Your task to perform on an android device: Open Chrome and go to the settings page Image 0: 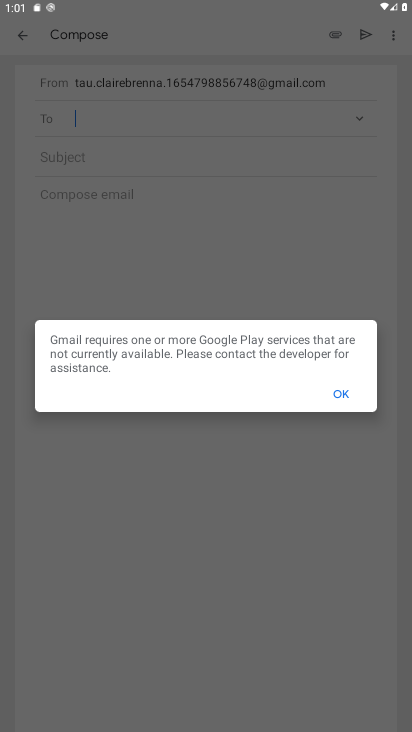
Step 0: click (344, 387)
Your task to perform on an android device: Open Chrome and go to the settings page Image 1: 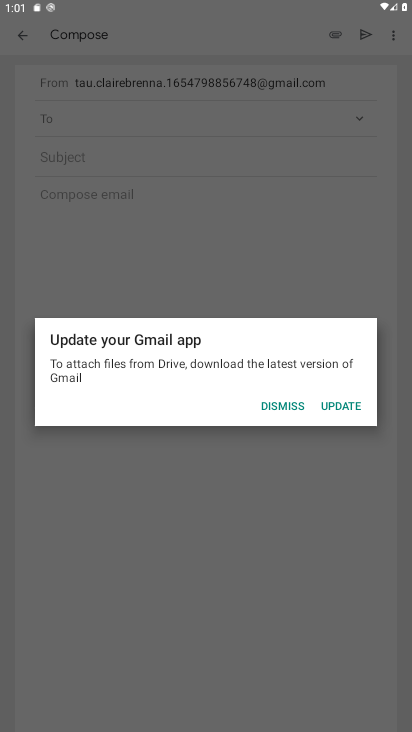
Step 1: click (346, 385)
Your task to perform on an android device: Open Chrome and go to the settings page Image 2: 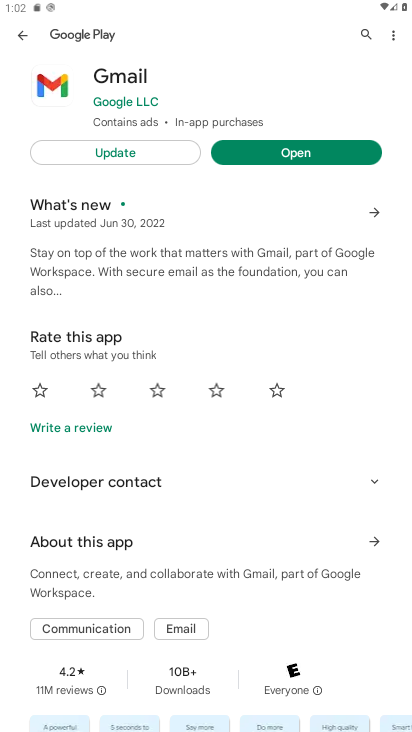
Step 2: press back button
Your task to perform on an android device: Open Chrome and go to the settings page Image 3: 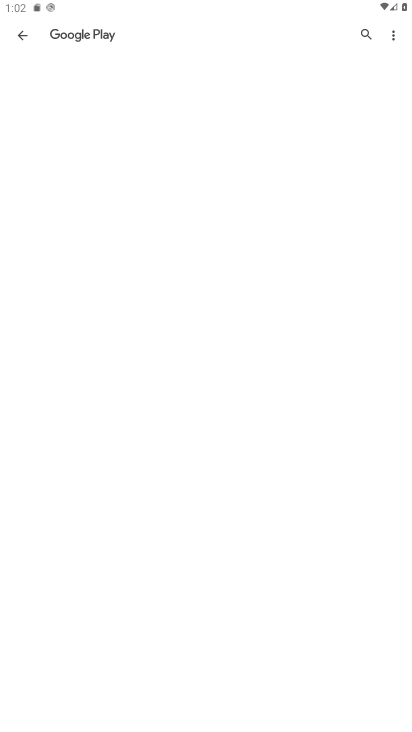
Step 3: press back button
Your task to perform on an android device: Open Chrome and go to the settings page Image 4: 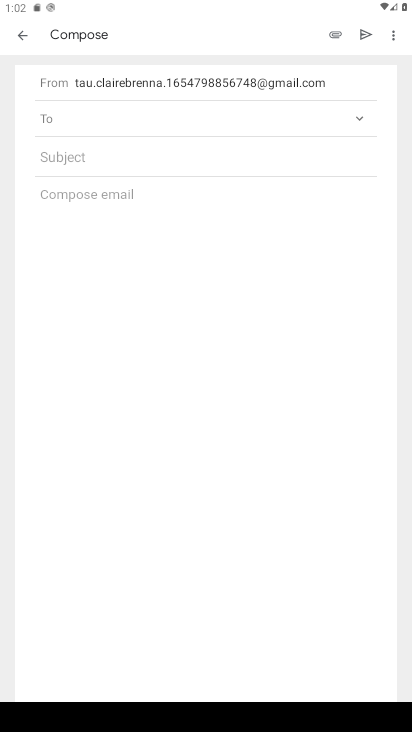
Step 4: click (23, 35)
Your task to perform on an android device: Open Chrome and go to the settings page Image 5: 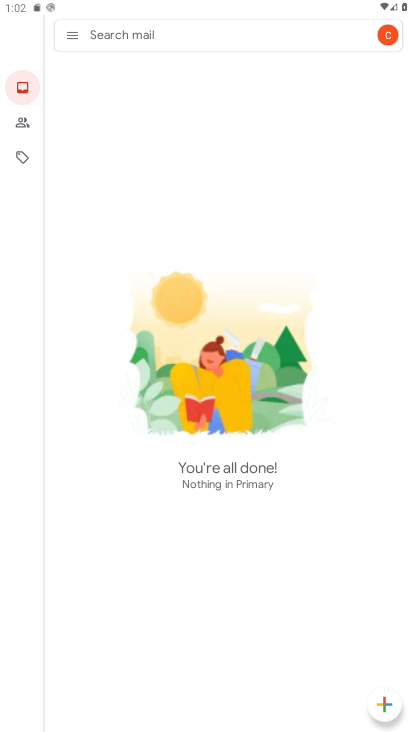
Step 5: press home button
Your task to perform on an android device: Open Chrome and go to the settings page Image 6: 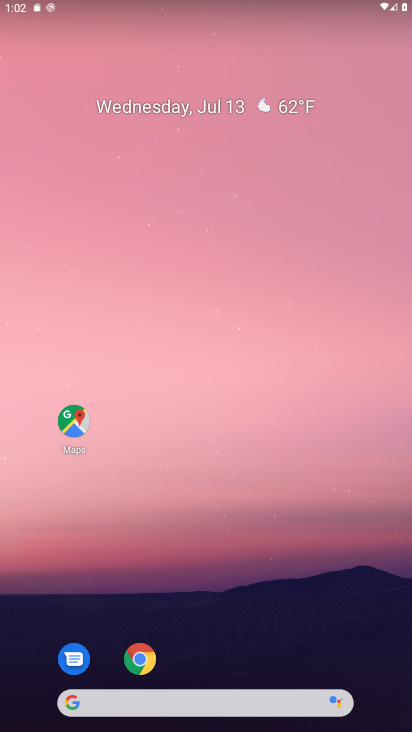
Step 6: drag from (209, 719) to (198, 0)
Your task to perform on an android device: Open Chrome and go to the settings page Image 7: 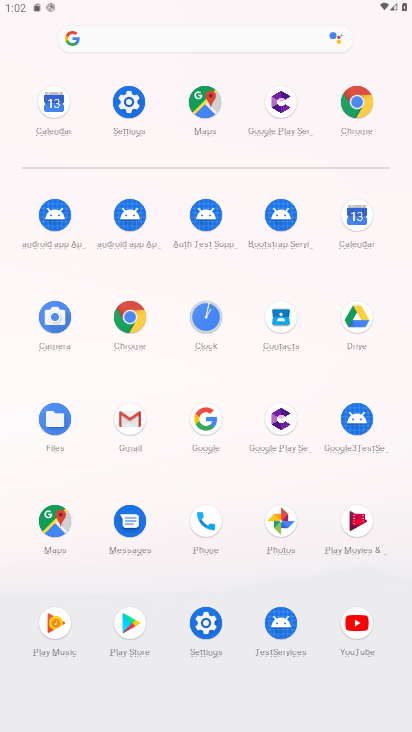
Step 7: click (121, 97)
Your task to perform on an android device: Open Chrome and go to the settings page Image 8: 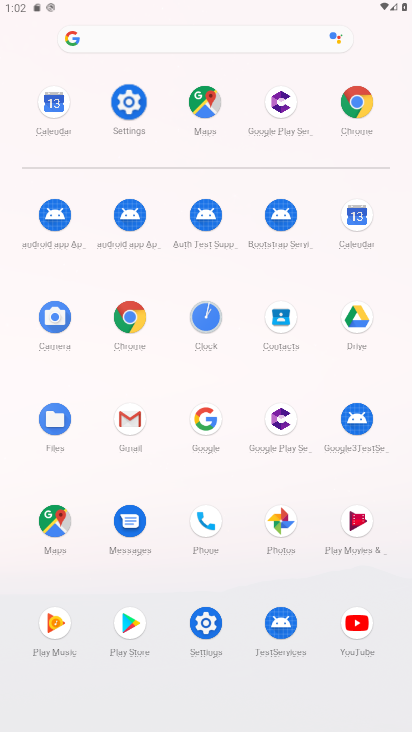
Step 8: click (121, 97)
Your task to perform on an android device: Open Chrome and go to the settings page Image 9: 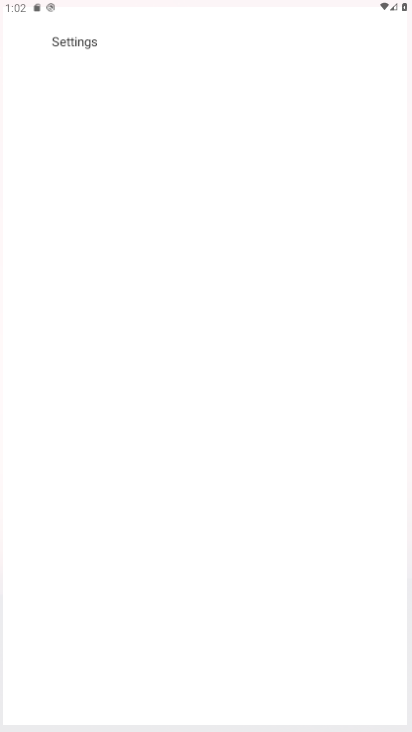
Step 9: click (121, 97)
Your task to perform on an android device: Open Chrome and go to the settings page Image 10: 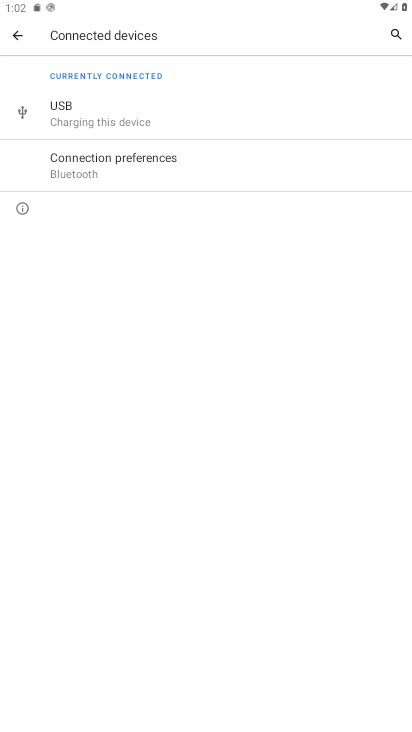
Step 10: click (9, 32)
Your task to perform on an android device: Open Chrome and go to the settings page Image 11: 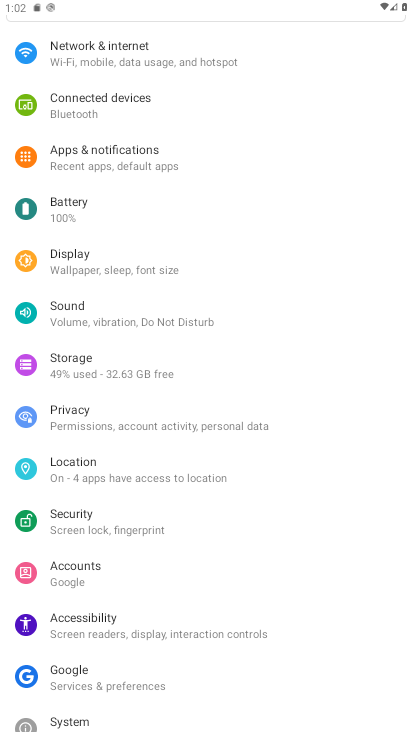
Step 11: press back button
Your task to perform on an android device: Open Chrome and go to the settings page Image 12: 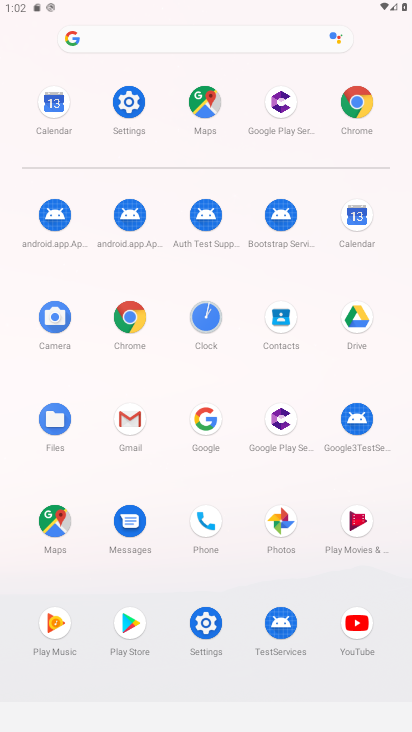
Step 12: click (132, 317)
Your task to perform on an android device: Open Chrome and go to the settings page Image 13: 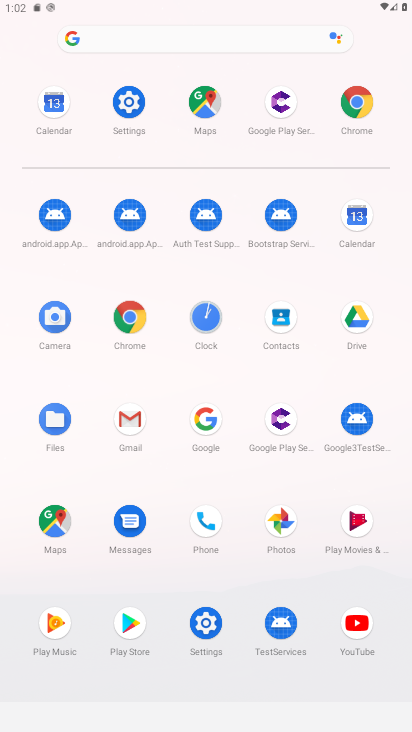
Step 13: click (127, 314)
Your task to perform on an android device: Open Chrome and go to the settings page Image 14: 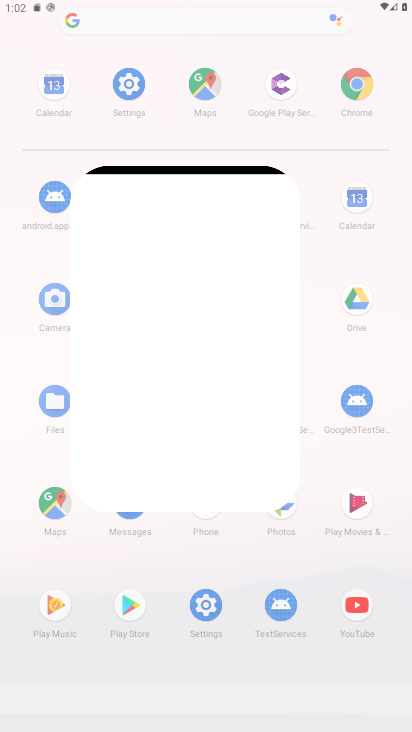
Step 14: click (127, 314)
Your task to perform on an android device: Open Chrome and go to the settings page Image 15: 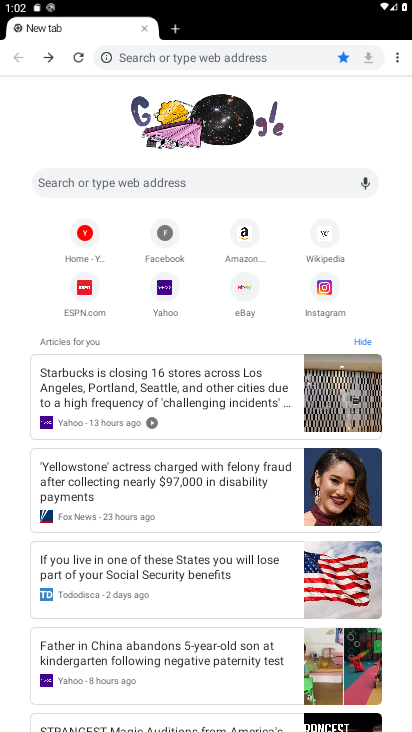
Step 15: click (392, 57)
Your task to perform on an android device: Open Chrome and go to the settings page Image 16: 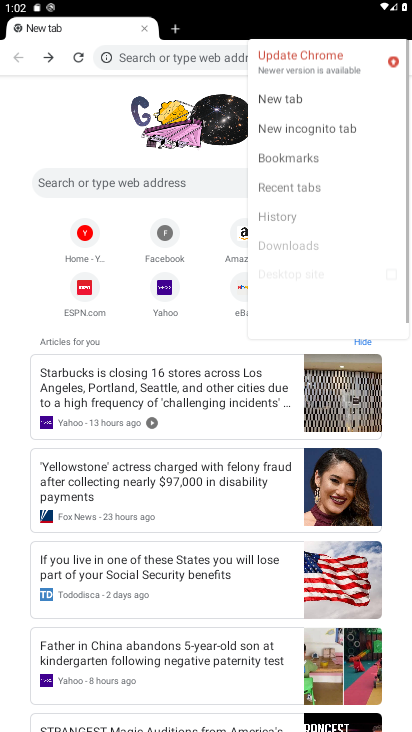
Step 16: drag from (393, 57) to (280, 297)
Your task to perform on an android device: Open Chrome and go to the settings page Image 17: 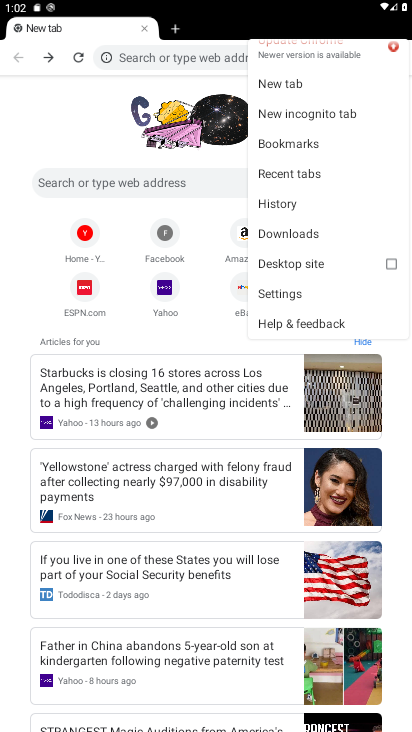
Step 17: click (275, 300)
Your task to perform on an android device: Open Chrome and go to the settings page Image 18: 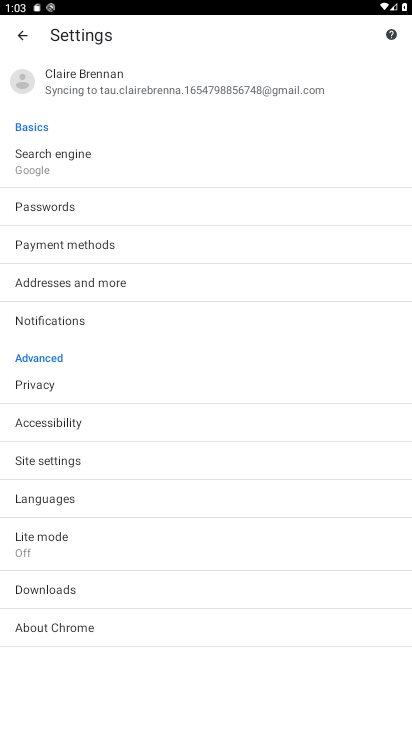
Step 18: task complete